Your task to perform on an android device: add a label to a message in the gmail app Image 0: 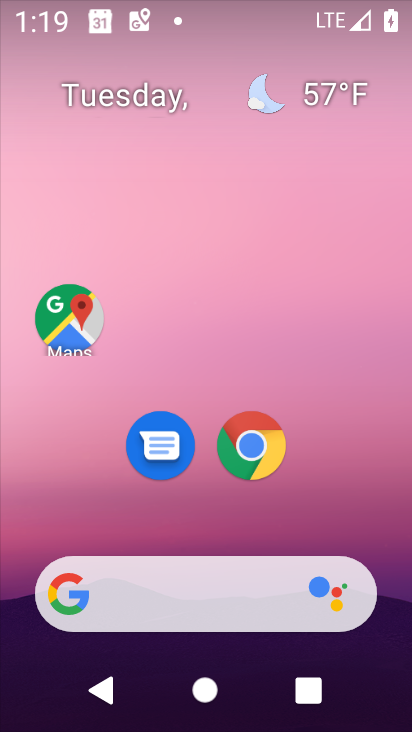
Step 0: drag from (327, 502) to (357, 150)
Your task to perform on an android device: add a label to a message in the gmail app Image 1: 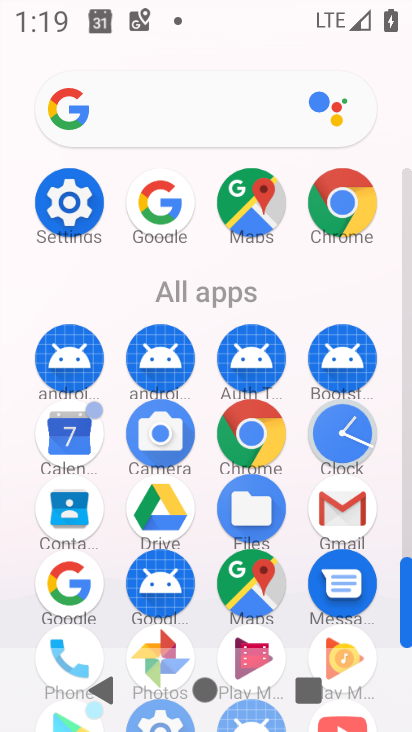
Step 1: click (349, 503)
Your task to perform on an android device: add a label to a message in the gmail app Image 2: 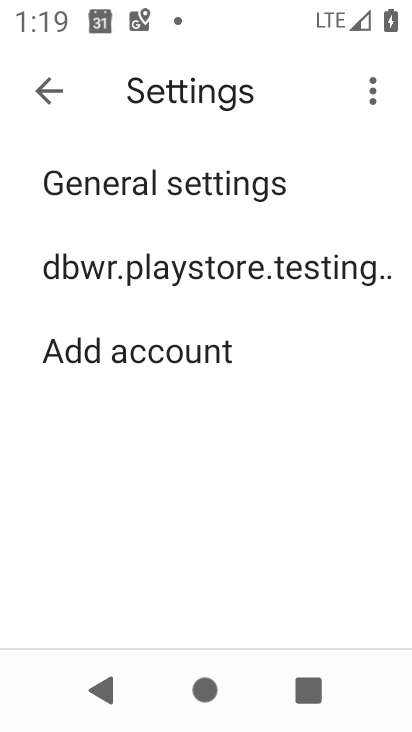
Step 2: press back button
Your task to perform on an android device: add a label to a message in the gmail app Image 3: 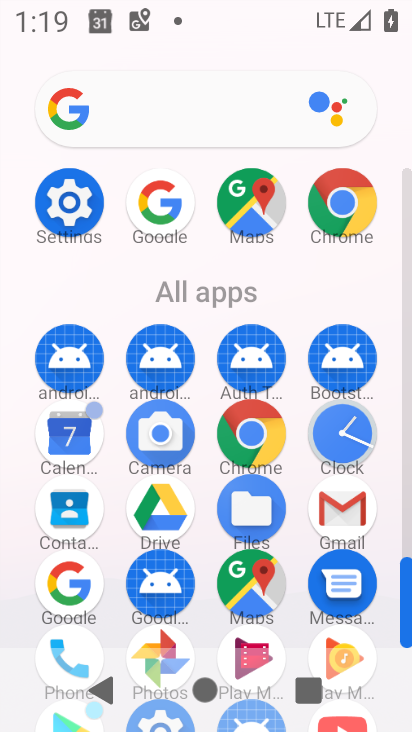
Step 3: click (359, 495)
Your task to perform on an android device: add a label to a message in the gmail app Image 4: 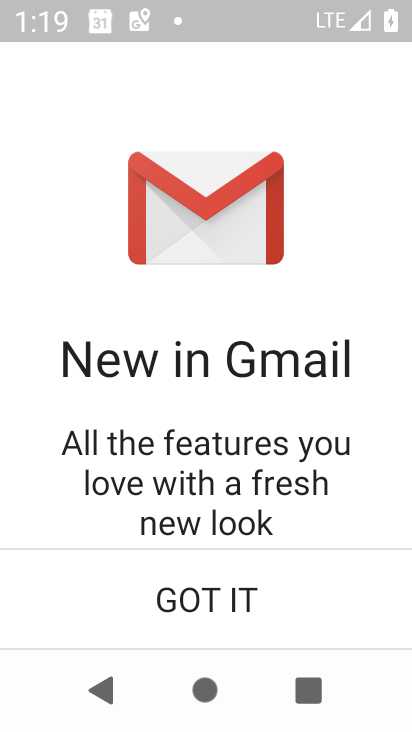
Step 4: click (254, 594)
Your task to perform on an android device: add a label to a message in the gmail app Image 5: 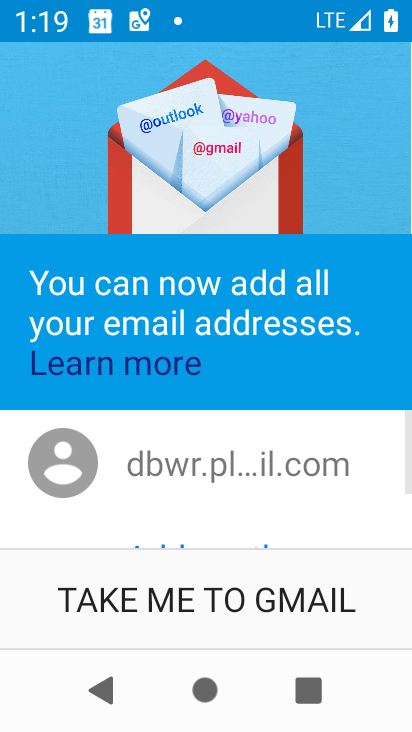
Step 5: click (254, 594)
Your task to perform on an android device: add a label to a message in the gmail app Image 6: 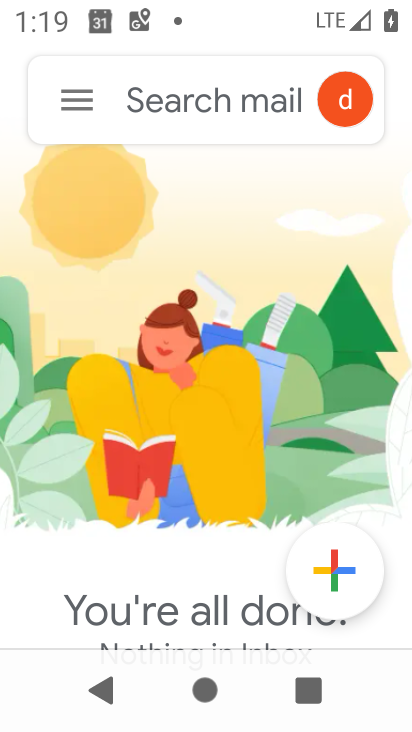
Step 6: task complete